Your task to perform on an android device: check android version Image 0: 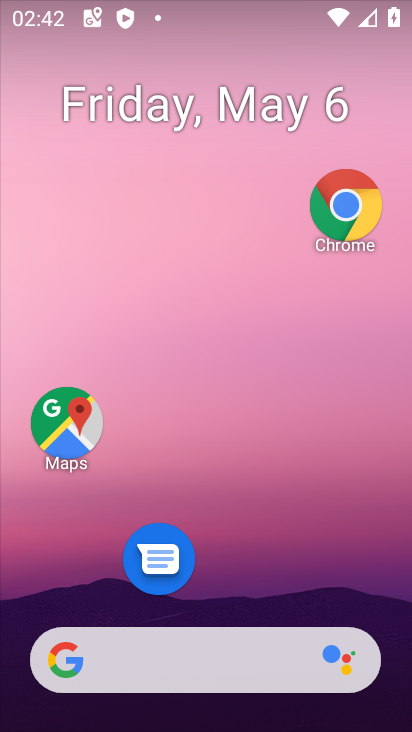
Step 0: drag from (199, 658) to (356, 42)
Your task to perform on an android device: check android version Image 1: 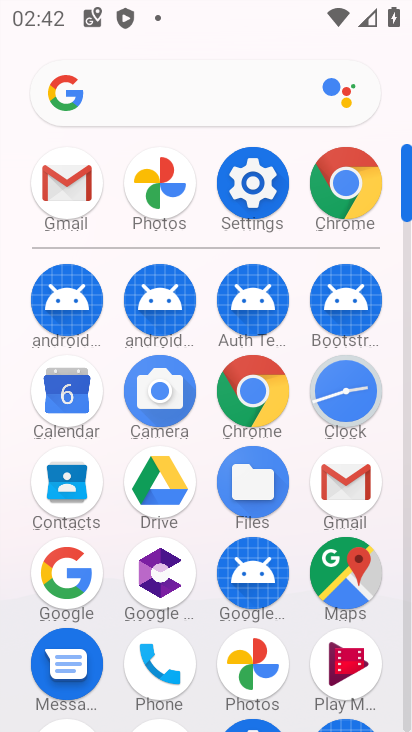
Step 1: click (251, 180)
Your task to perform on an android device: check android version Image 2: 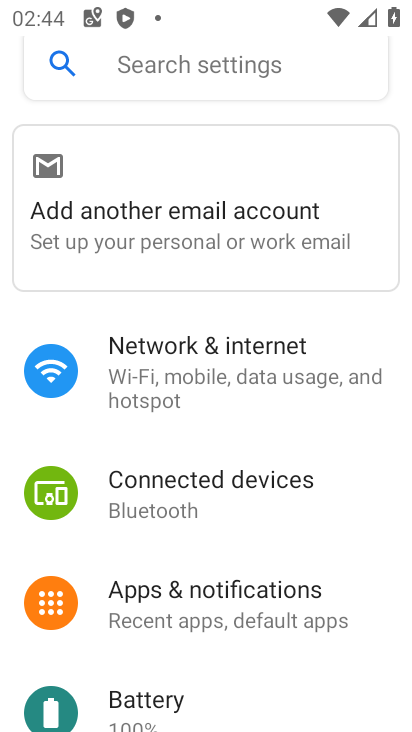
Step 2: drag from (152, 669) to (314, 73)
Your task to perform on an android device: check android version Image 3: 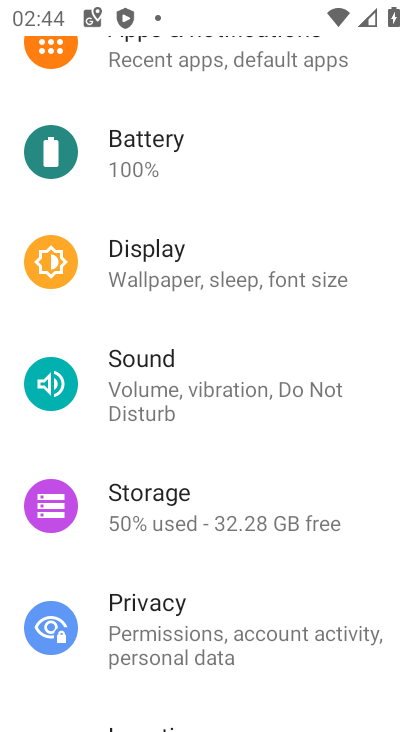
Step 3: drag from (187, 673) to (349, 43)
Your task to perform on an android device: check android version Image 4: 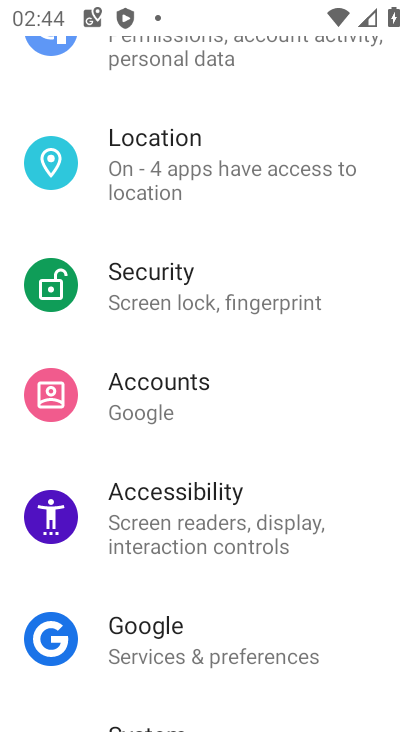
Step 4: drag from (193, 658) to (359, 95)
Your task to perform on an android device: check android version Image 5: 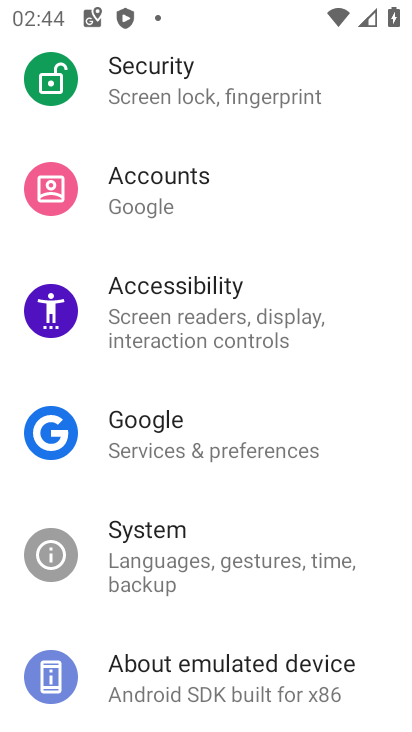
Step 5: click (211, 691)
Your task to perform on an android device: check android version Image 6: 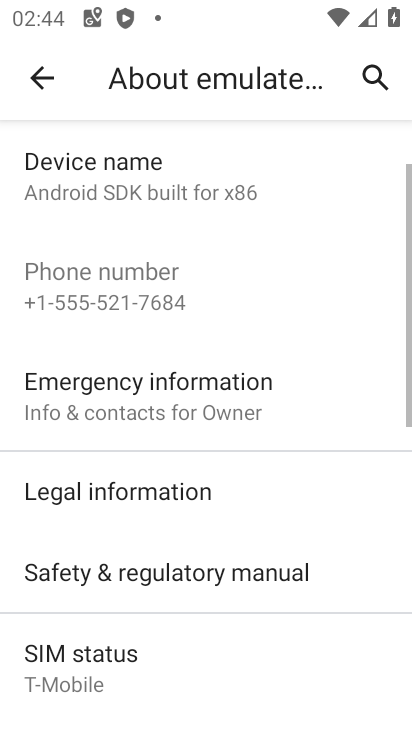
Step 6: drag from (198, 671) to (338, 150)
Your task to perform on an android device: check android version Image 7: 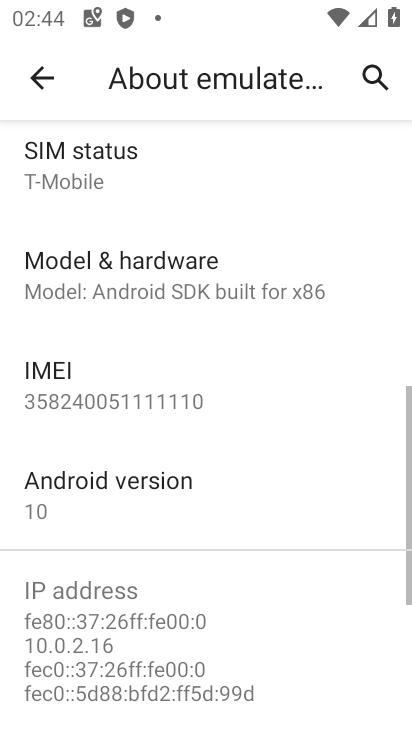
Step 7: click (180, 477)
Your task to perform on an android device: check android version Image 8: 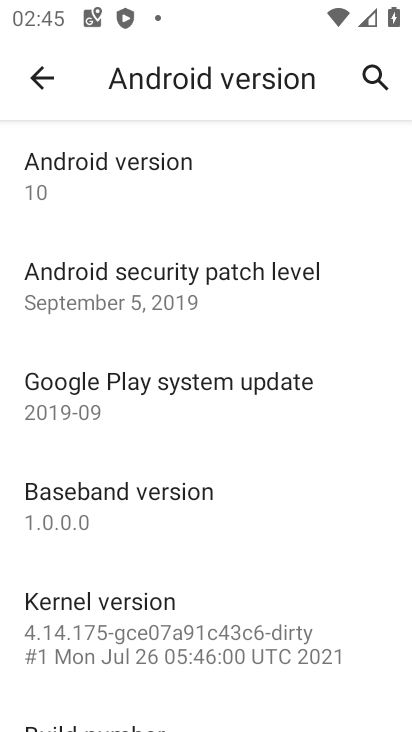
Step 8: task complete